Your task to perform on an android device: add a label to a message in the gmail app Image 0: 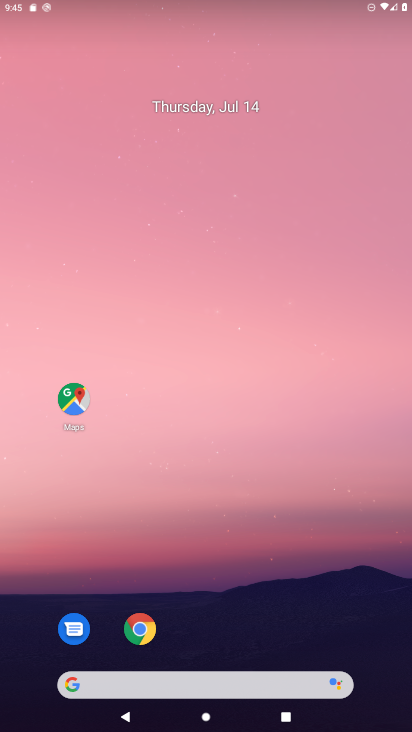
Step 0: press home button
Your task to perform on an android device: add a label to a message in the gmail app Image 1: 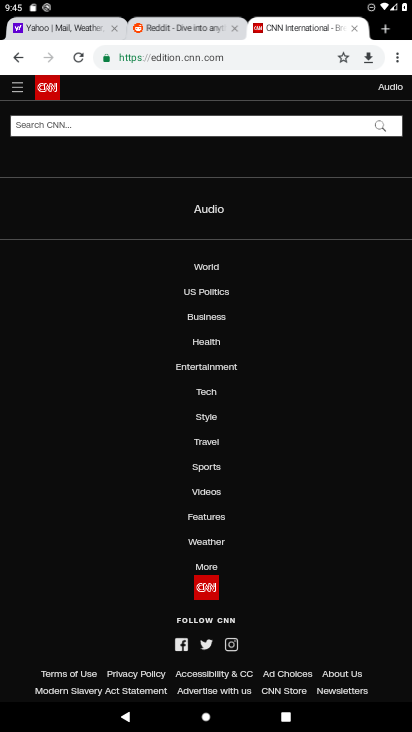
Step 1: click (287, 130)
Your task to perform on an android device: add a label to a message in the gmail app Image 2: 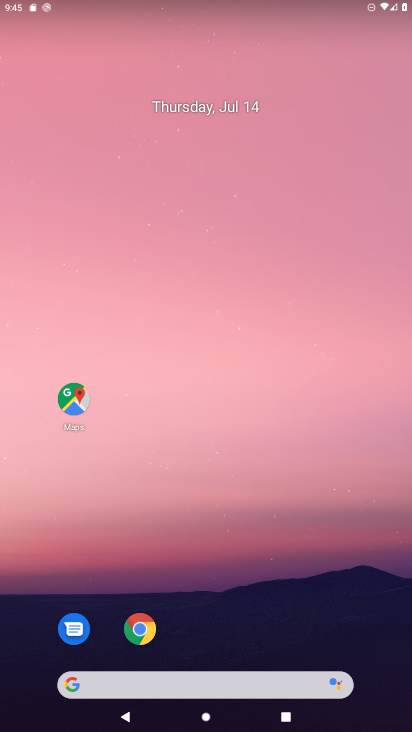
Step 2: drag from (256, 610) to (302, 105)
Your task to perform on an android device: add a label to a message in the gmail app Image 3: 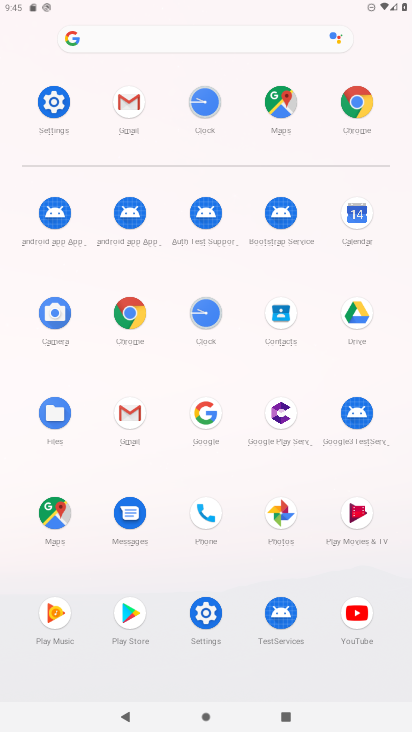
Step 3: click (128, 407)
Your task to perform on an android device: add a label to a message in the gmail app Image 4: 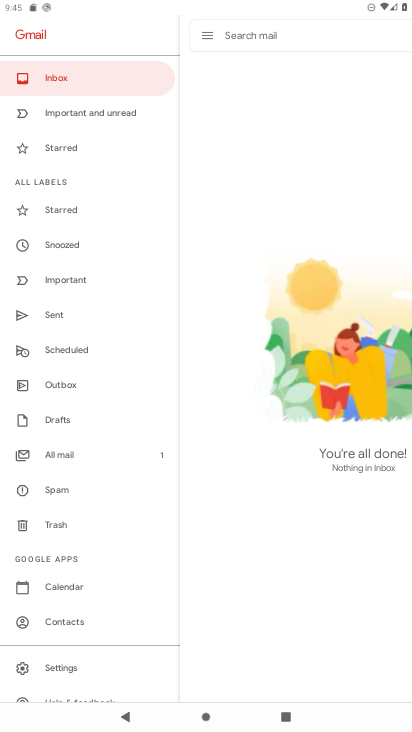
Step 4: task complete